Your task to perform on an android device: Open the web browser Image 0: 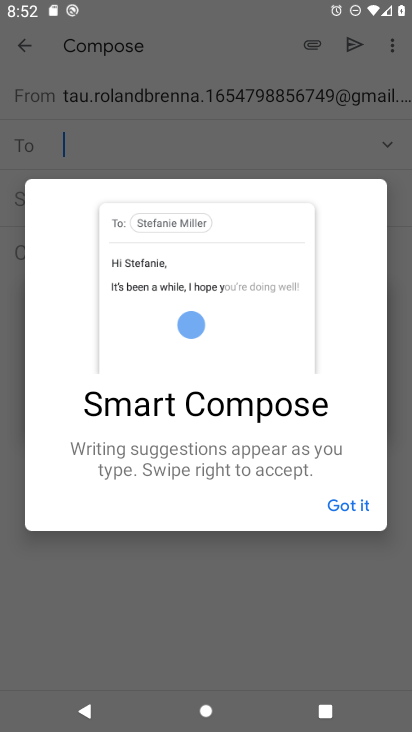
Step 0: press home button
Your task to perform on an android device: Open the web browser Image 1: 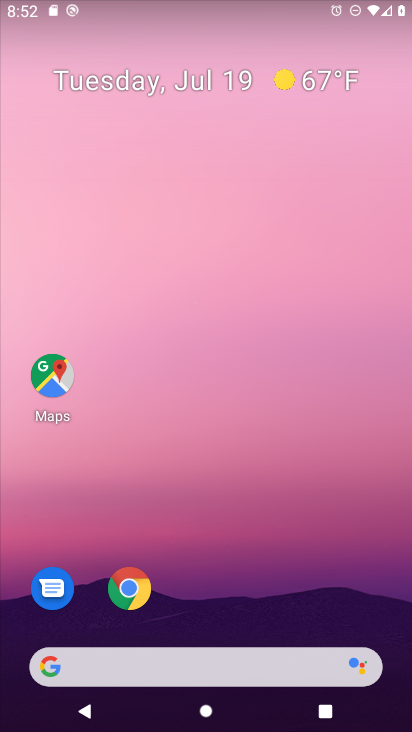
Step 1: drag from (349, 606) to (359, 80)
Your task to perform on an android device: Open the web browser Image 2: 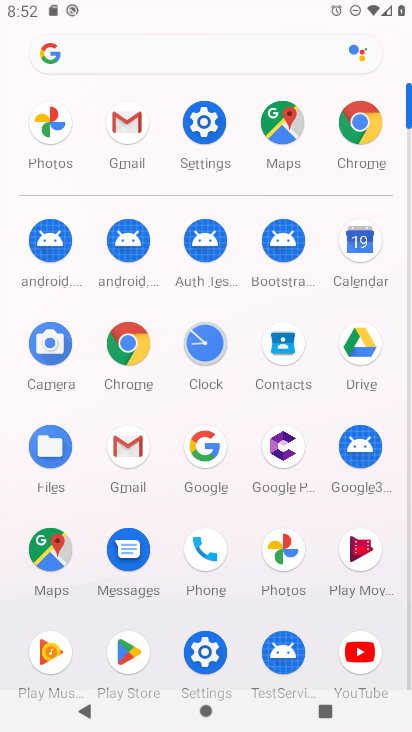
Step 2: click (137, 342)
Your task to perform on an android device: Open the web browser Image 3: 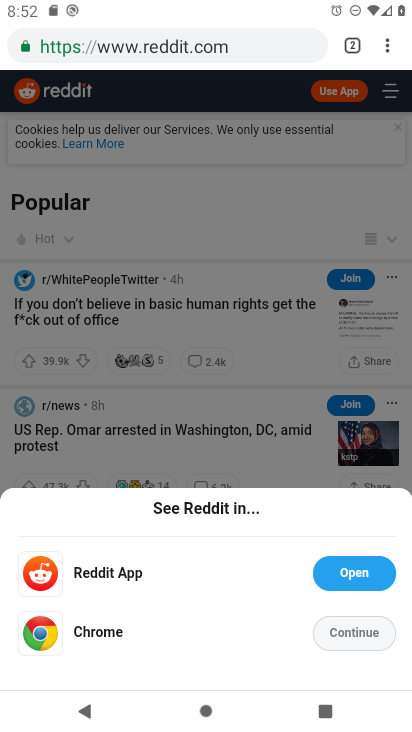
Step 3: task complete